Your task to perform on an android device: Is it going to rain tomorrow? Image 0: 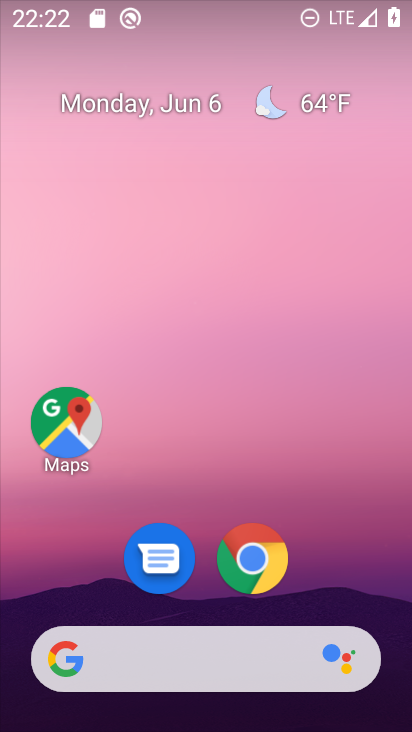
Step 0: drag from (199, 730) to (135, 177)
Your task to perform on an android device: Is it going to rain tomorrow? Image 1: 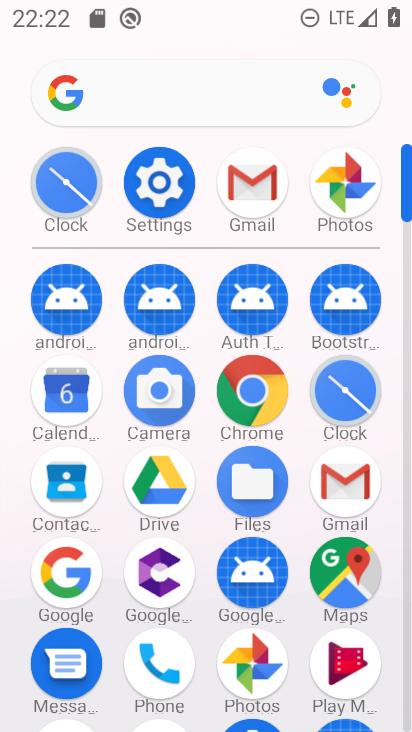
Step 1: click (54, 570)
Your task to perform on an android device: Is it going to rain tomorrow? Image 2: 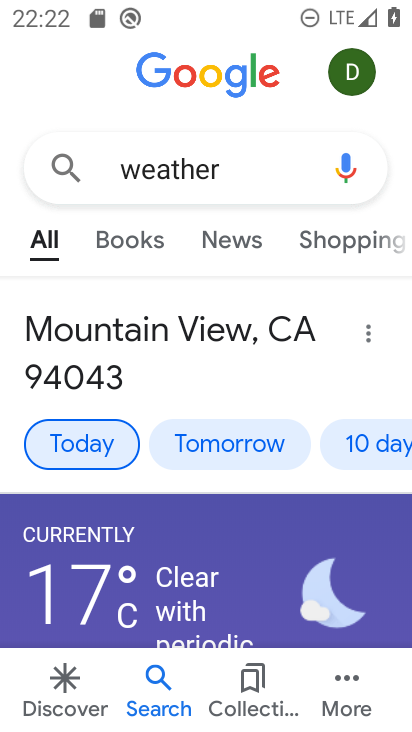
Step 2: click (250, 444)
Your task to perform on an android device: Is it going to rain tomorrow? Image 3: 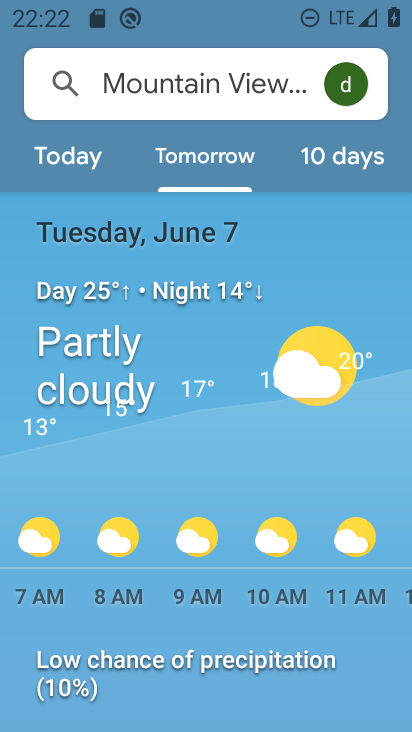
Step 3: task complete